Your task to perform on an android device: Go to Google Image 0: 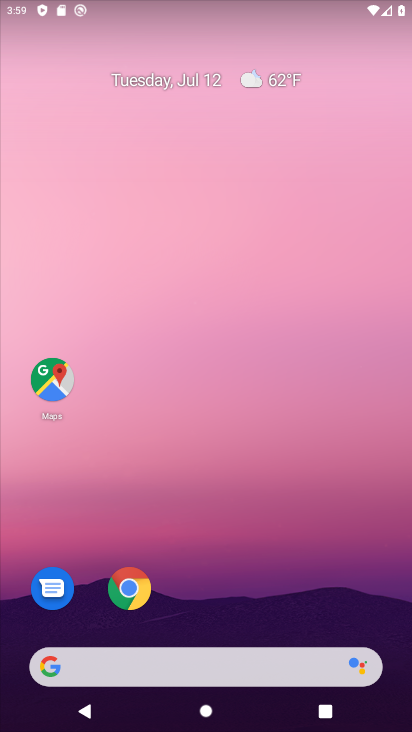
Step 0: drag from (258, 546) to (205, 10)
Your task to perform on an android device: Go to Google Image 1: 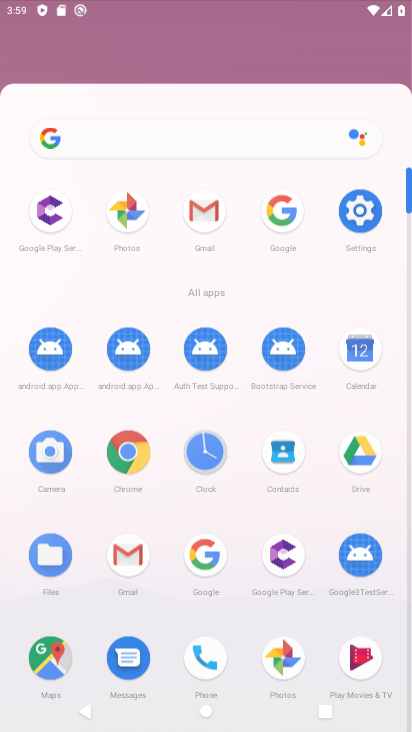
Step 1: drag from (235, 616) to (232, 88)
Your task to perform on an android device: Go to Google Image 2: 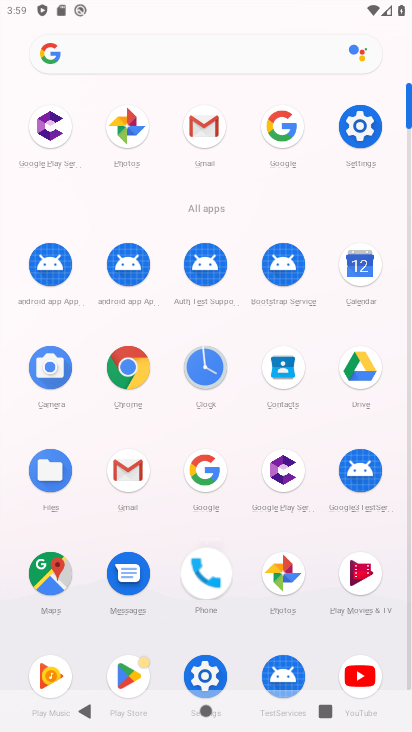
Step 2: drag from (199, 46) to (206, 0)
Your task to perform on an android device: Go to Google Image 3: 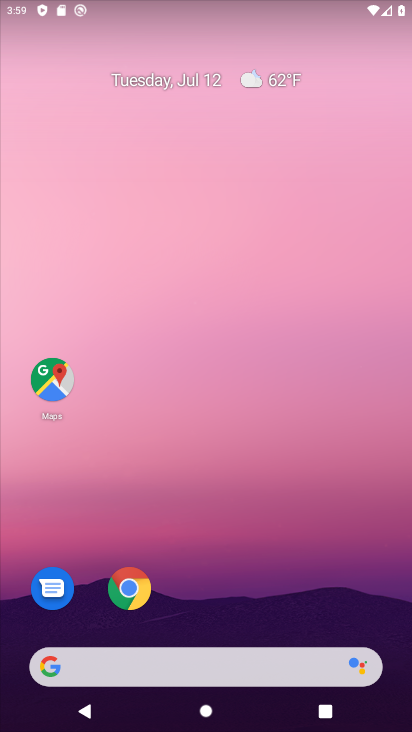
Step 3: drag from (249, 506) to (266, 0)
Your task to perform on an android device: Go to Google Image 4: 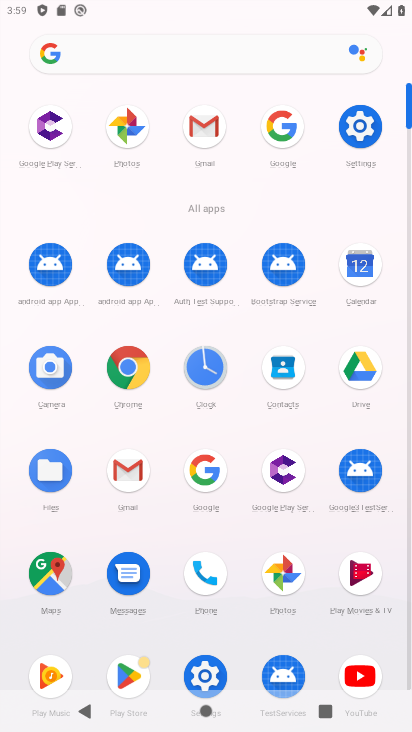
Step 4: click (210, 475)
Your task to perform on an android device: Go to Google Image 5: 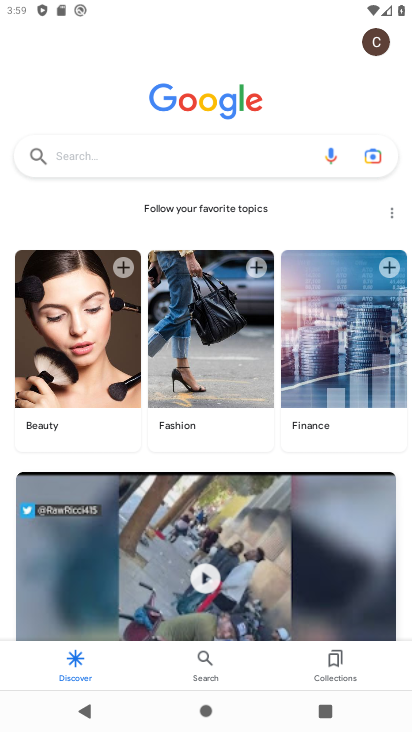
Step 5: task complete